Your task to perform on an android device: What's on my calendar today? Image 0: 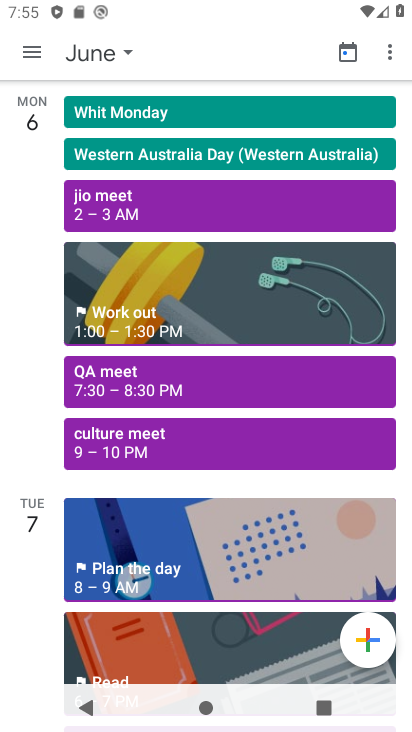
Step 0: press home button
Your task to perform on an android device: What's on my calendar today? Image 1: 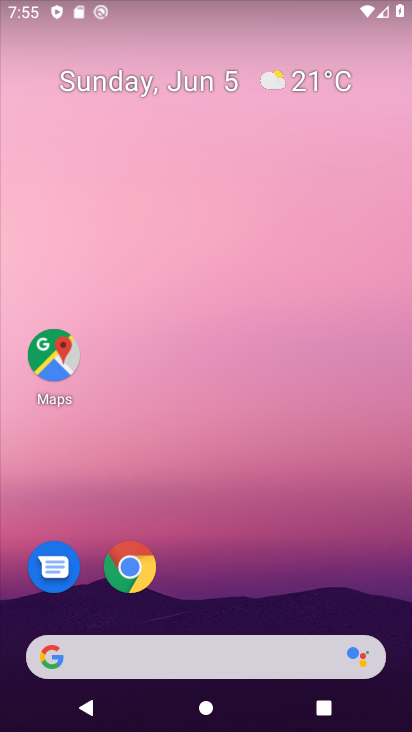
Step 1: drag from (247, 633) to (298, 80)
Your task to perform on an android device: What's on my calendar today? Image 2: 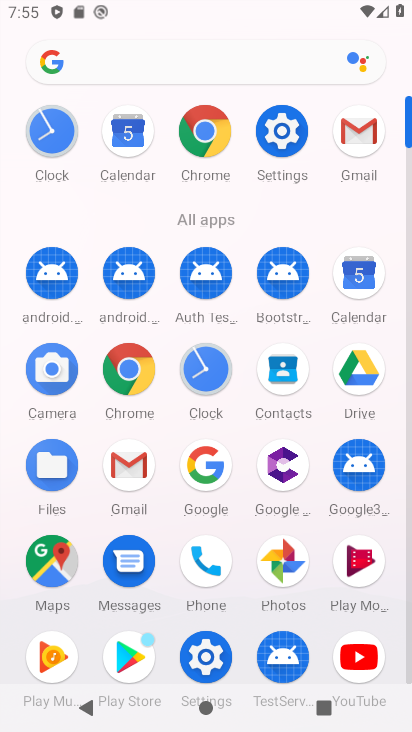
Step 2: click (122, 133)
Your task to perform on an android device: What's on my calendar today? Image 3: 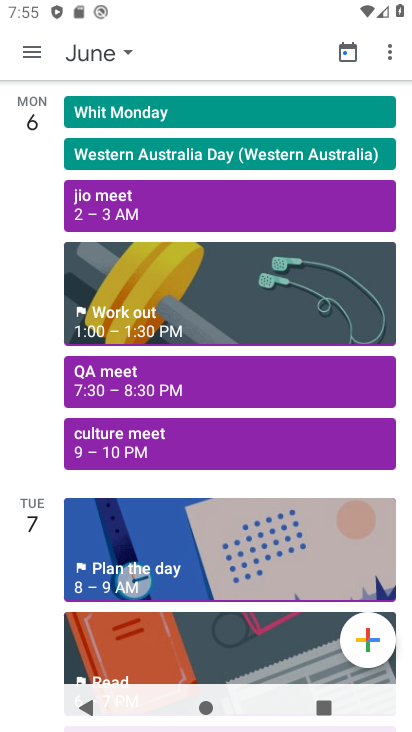
Step 3: click (142, 115)
Your task to perform on an android device: What's on my calendar today? Image 4: 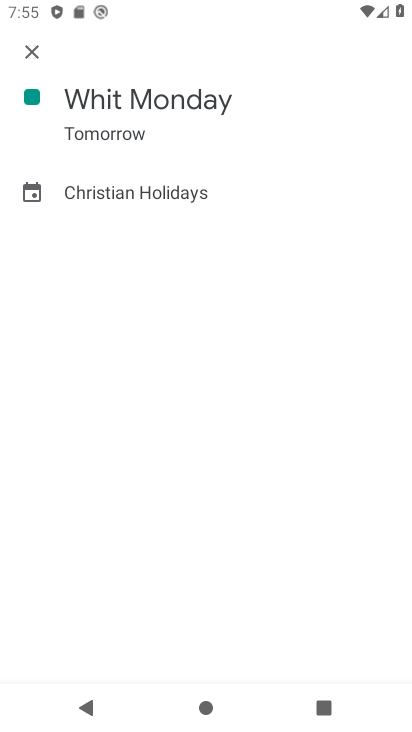
Step 4: click (33, 66)
Your task to perform on an android device: What's on my calendar today? Image 5: 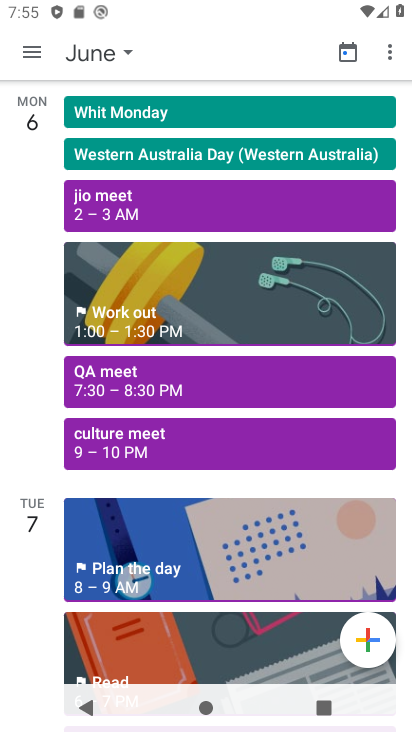
Step 5: task complete